Your task to perform on an android device: Toggle the flashlight Image 0: 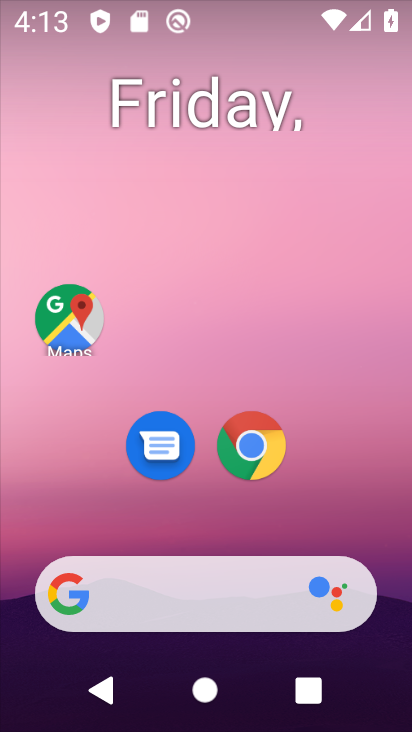
Step 0: press home button
Your task to perform on an android device: Toggle the flashlight Image 1: 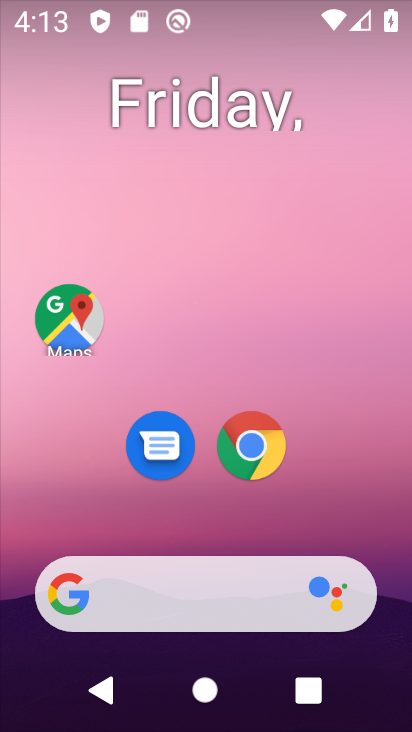
Step 1: task complete